Your task to perform on an android device: Open Youtube and go to "Your channel" Image 0: 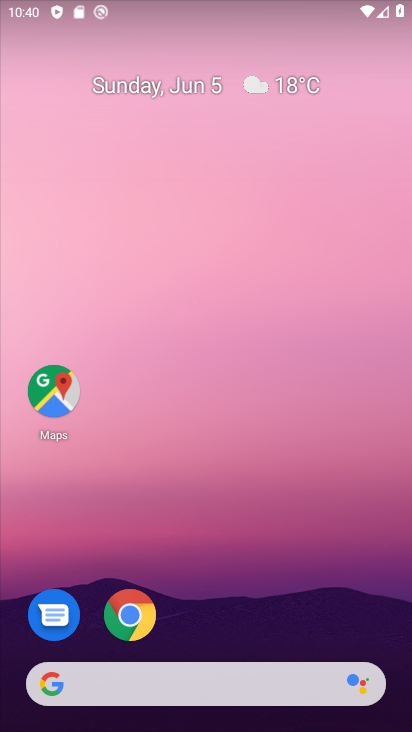
Step 0: drag from (283, 577) to (228, 31)
Your task to perform on an android device: Open Youtube and go to "Your channel" Image 1: 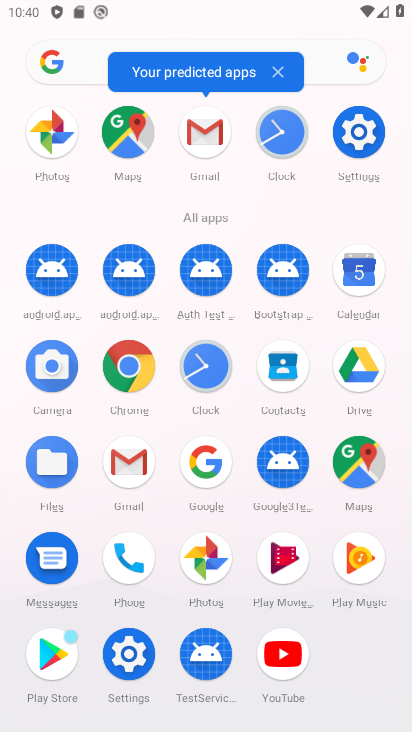
Step 1: click (281, 652)
Your task to perform on an android device: Open Youtube and go to "Your channel" Image 2: 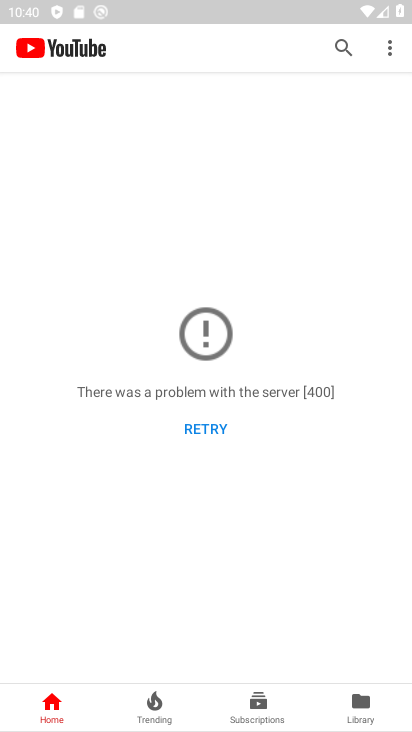
Step 2: click (216, 420)
Your task to perform on an android device: Open Youtube and go to "Your channel" Image 3: 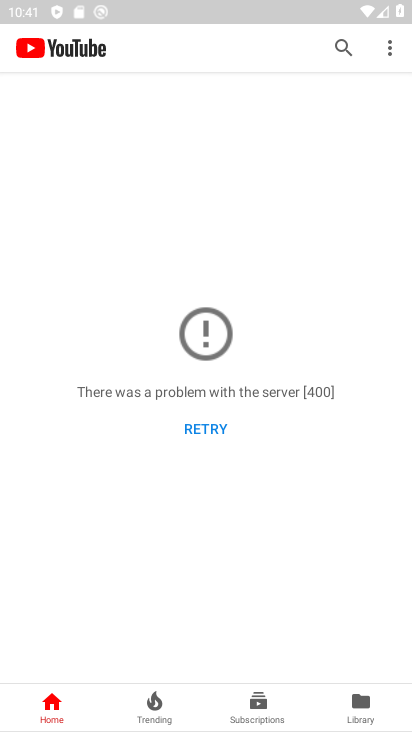
Step 3: click (372, 703)
Your task to perform on an android device: Open Youtube and go to "Your channel" Image 4: 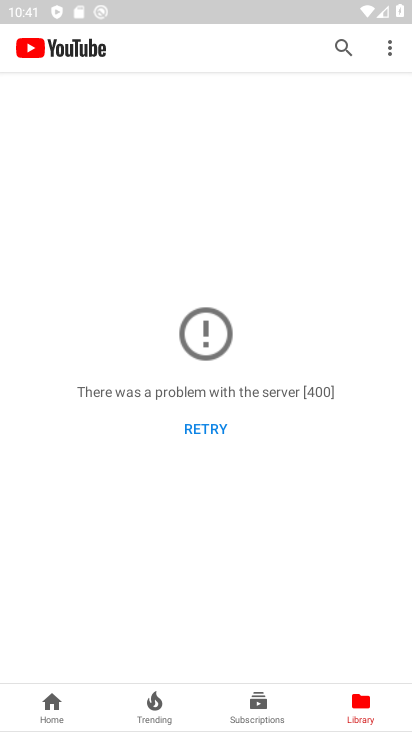
Step 4: task complete